Your task to perform on an android device: turn on translation in the chrome app Image 0: 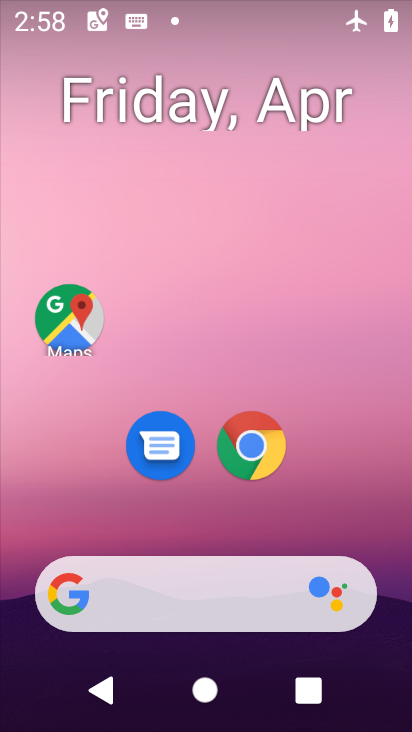
Step 0: click (263, 457)
Your task to perform on an android device: turn on translation in the chrome app Image 1: 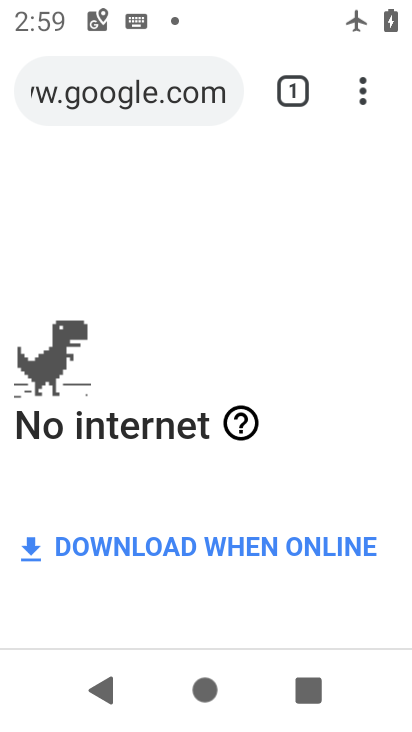
Step 1: drag from (365, 92) to (132, 470)
Your task to perform on an android device: turn on translation in the chrome app Image 2: 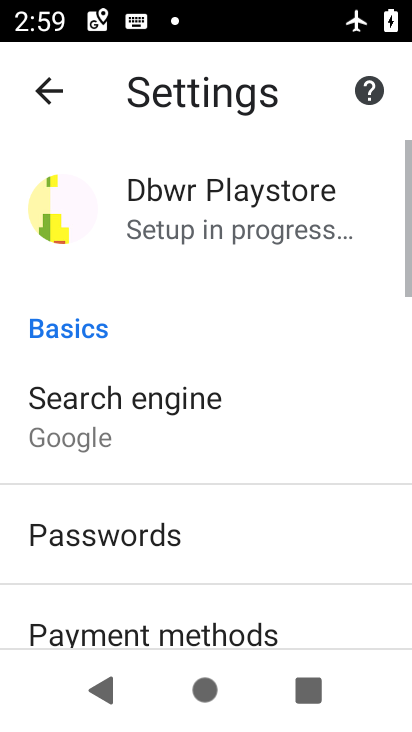
Step 2: drag from (342, 609) to (340, 158)
Your task to perform on an android device: turn on translation in the chrome app Image 3: 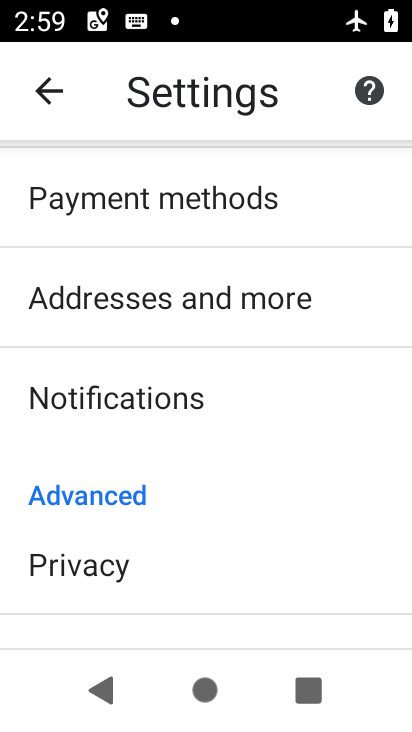
Step 3: drag from (305, 521) to (336, 230)
Your task to perform on an android device: turn on translation in the chrome app Image 4: 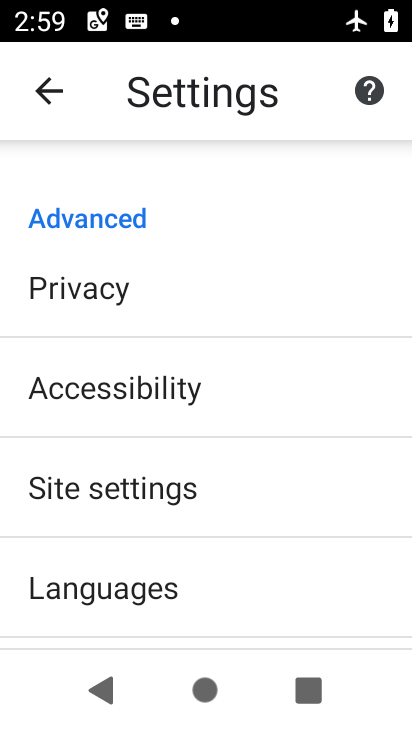
Step 4: click (120, 589)
Your task to perform on an android device: turn on translation in the chrome app Image 5: 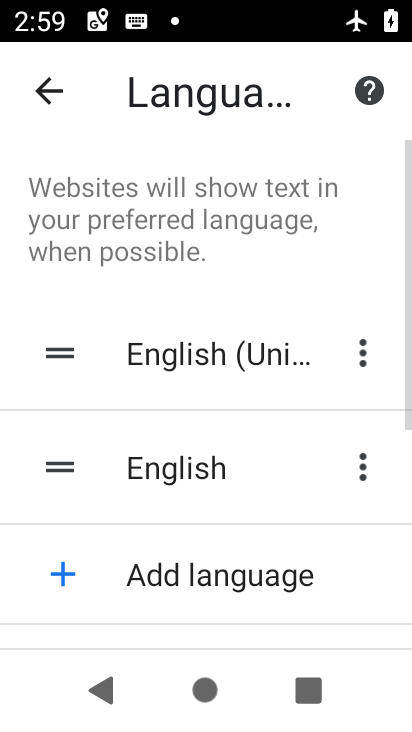
Step 5: task complete